Your task to perform on an android device: Open location settings Image 0: 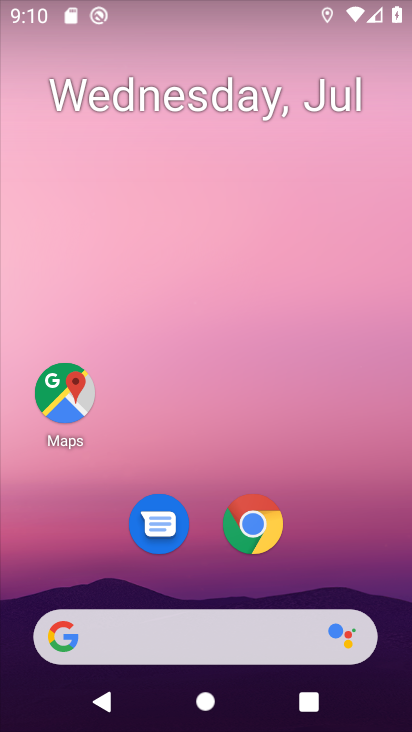
Step 0: drag from (307, 494) to (340, 32)
Your task to perform on an android device: Open location settings Image 1: 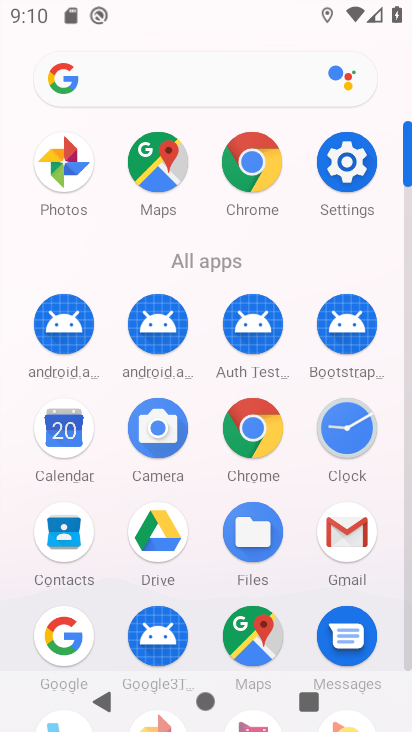
Step 1: click (342, 172)
Your task to perform on an android device: Open location settings Image 2: 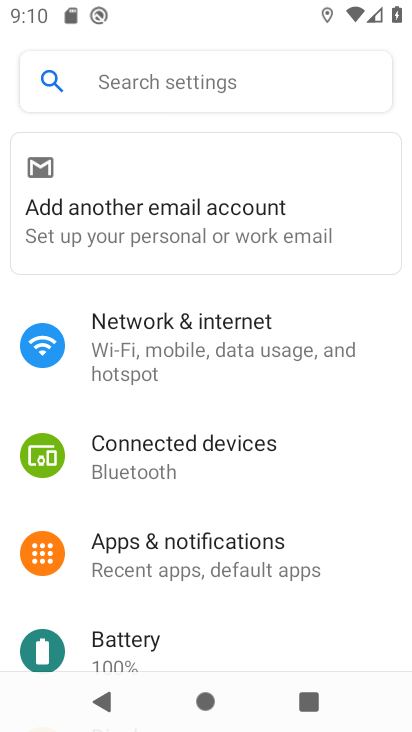
Step 2: drag from (240, 572) to (357, 253)
Your task to perform on an android device: Open location settings Image 3: 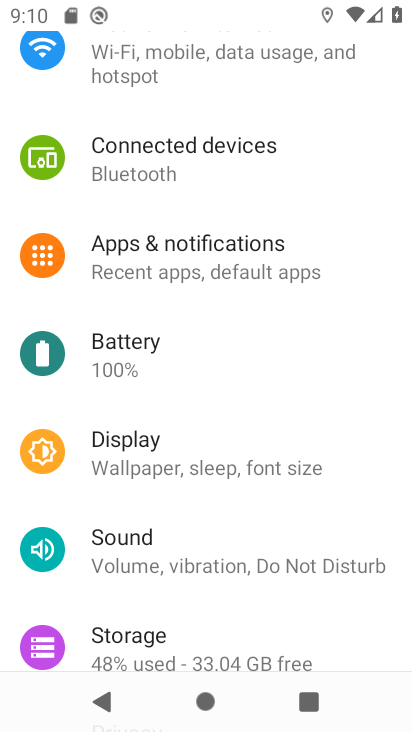
Step 3: drag from (225, 477) to (244, 238)
Your task to perform on an android device: Open location settings Image 4: 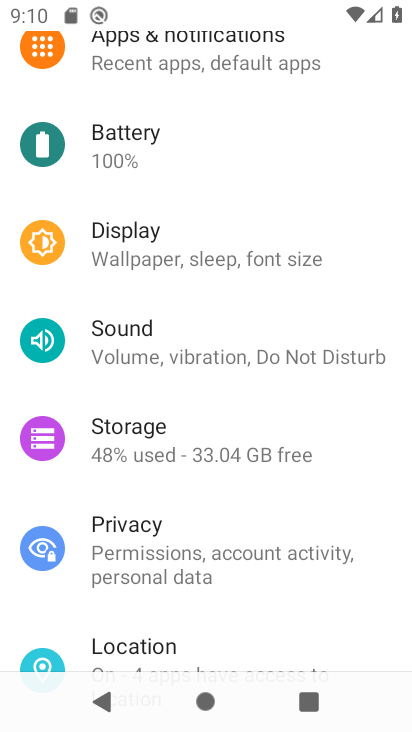
Step 4: drag from (257, 602) to (319, 222)
Your task to perform on an android device: Open location settings Image 5: 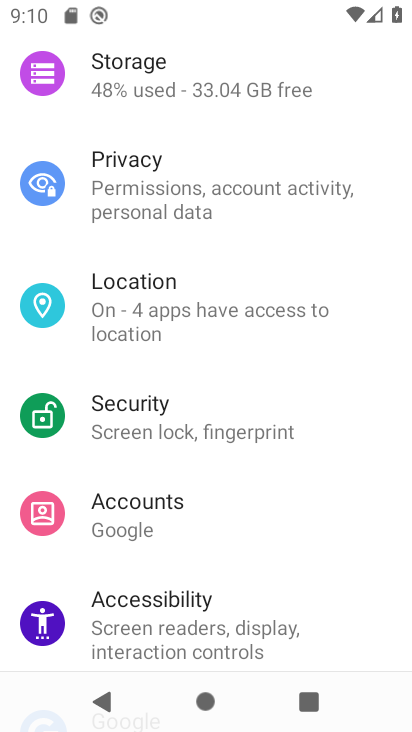
Step 5: click (252, 301)
Your task to perform on an android device: Open location settings Image 6: 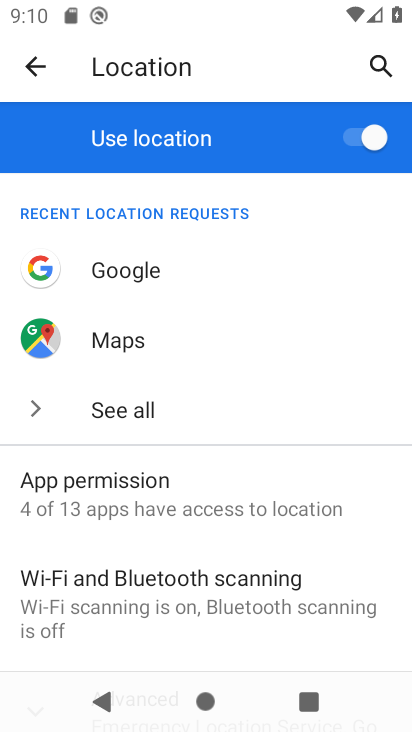
Step 6: task complete